Your task to perform on an android device: Open Google Chrome Image 0: 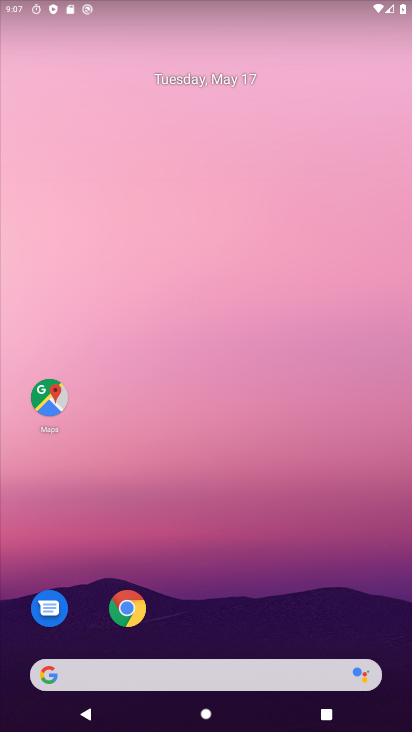
Step 0: drag from (331, 448) to (328, 70)
Your task to perform on an android device: Open Google Chrome Image 1: 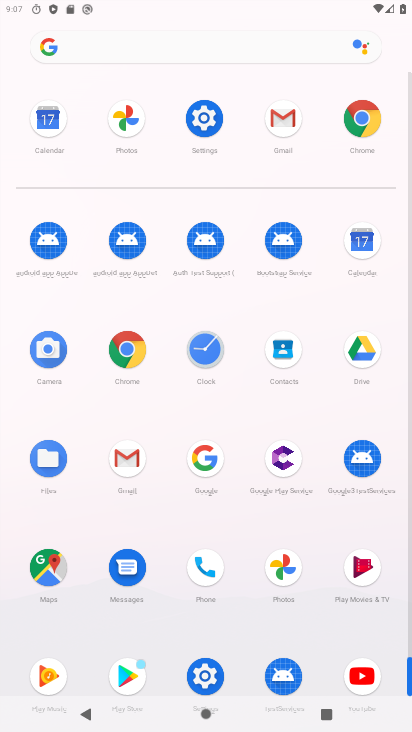
Step 1: click (130, 372)
Your task to perform on an android device: Open Google Chrome Image 2: 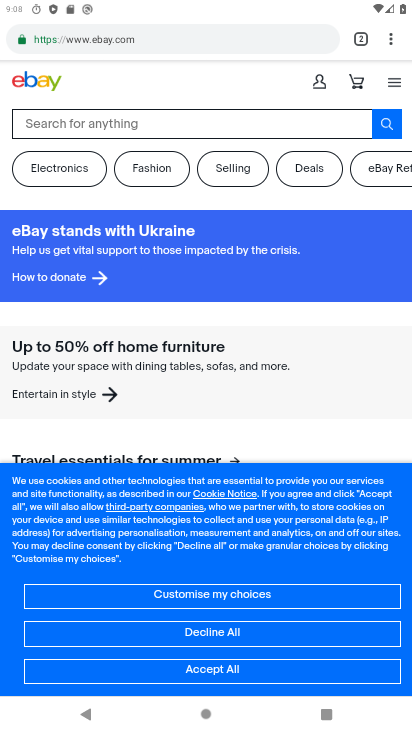
Step 2: task complete